Your task to perform on an android device: Open calendar and show me the third week of next month Image 0: 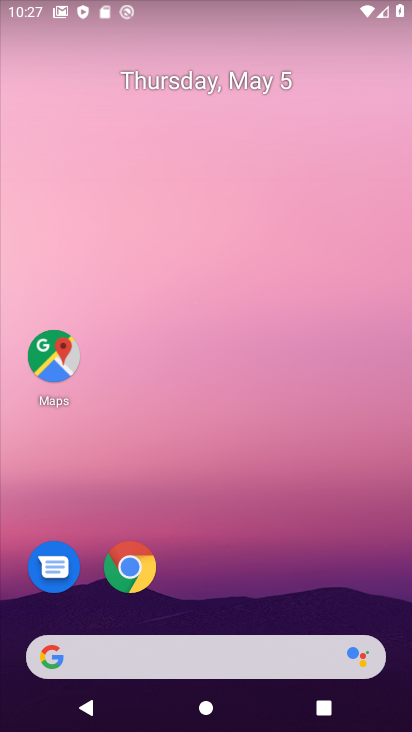
Step 0: click (288, 43)
Your task to perform on an android device: Open calendar and show me the third week of next month Image 1: 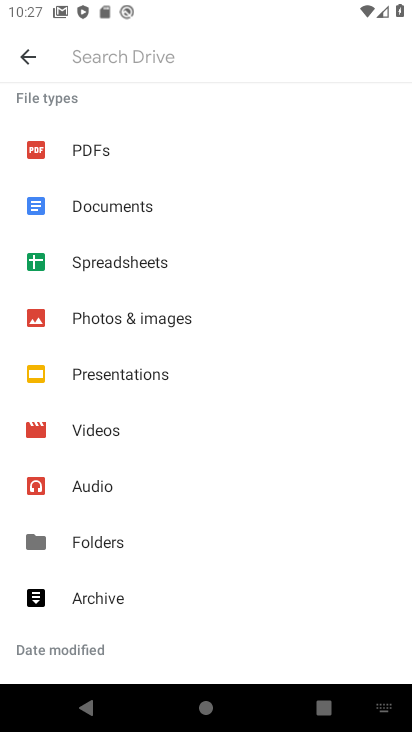
Step 1: press back button
Your task to perform on an android device: Open calendar and show me the third week of next month Image 2: 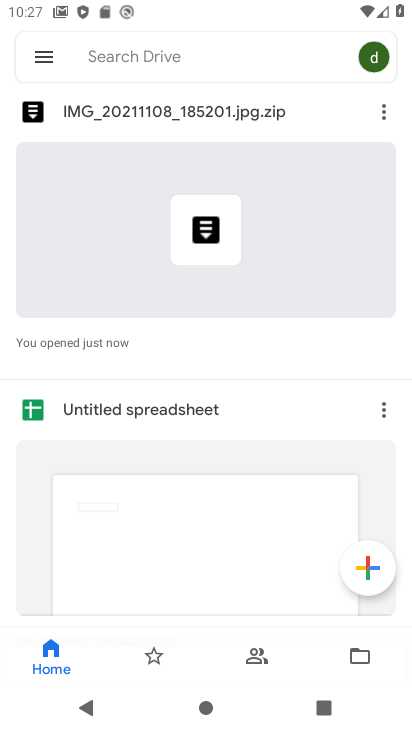
Step 2: press back button
Your task to perform on an android device: Open calendar and show me the third week of next month Image 3: 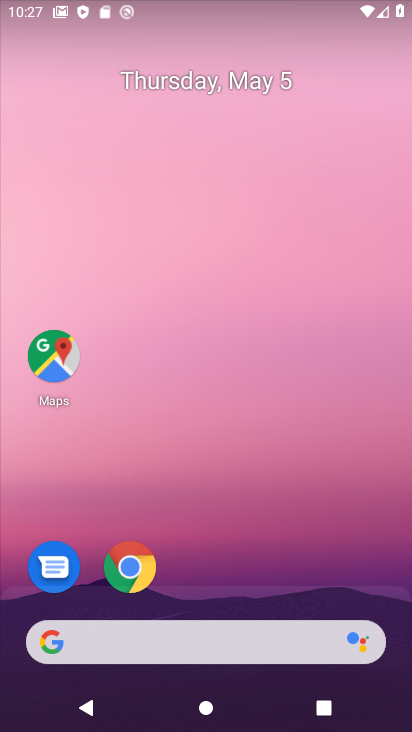
Step 3: drag from (243, 516) to (312, 66)
Your task to perform on an android device: Open calendar and show me the third week of next month Image 4: 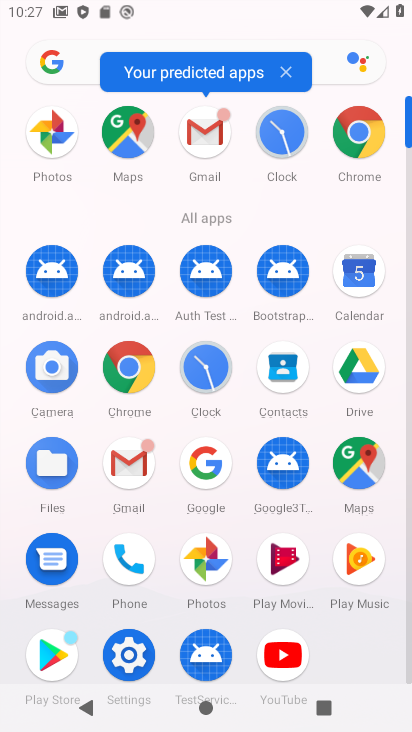
Step 4: click (354, 277)
Your task to perform on an android device: Open calendar and show me the third week of next month Image 5: 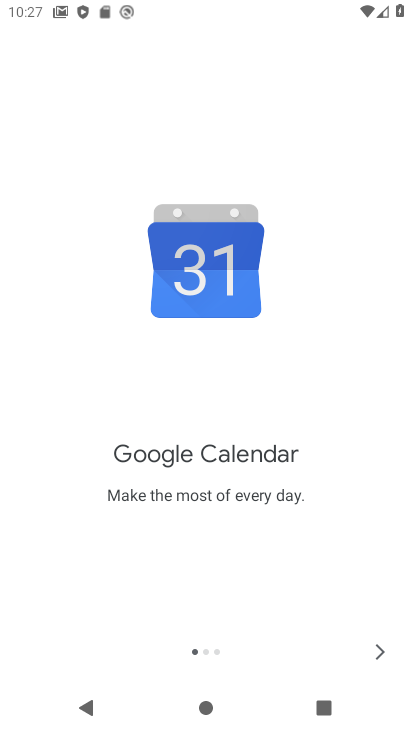
Step 5: click (387, 624)
Your task to perform on an android device: Open calendar and show me the third week of next month Image 6: 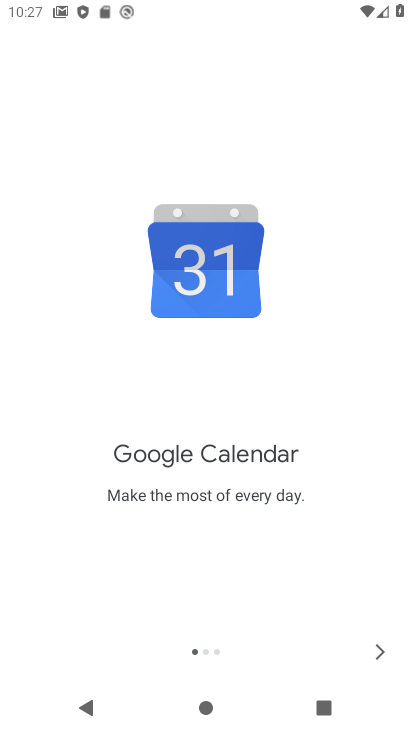
Step 6: click (376, 652)
Your task to perform on an android device: Open calendar and show me the third week of next month Image 7: 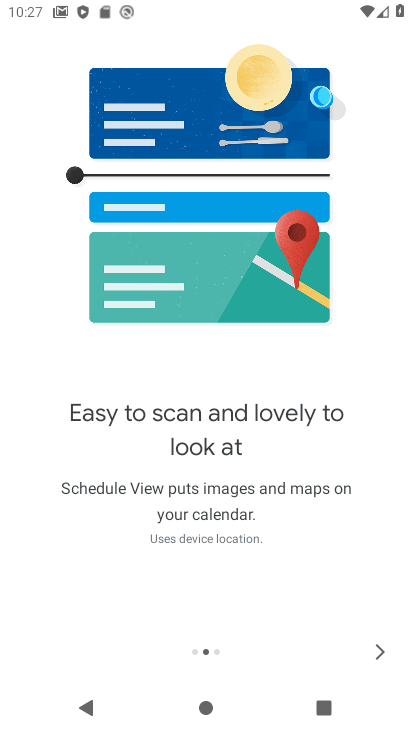
Step 7: click (383, 652)
Your task to perform on an android device: Open calendar and show me the third week of next month Image 8: 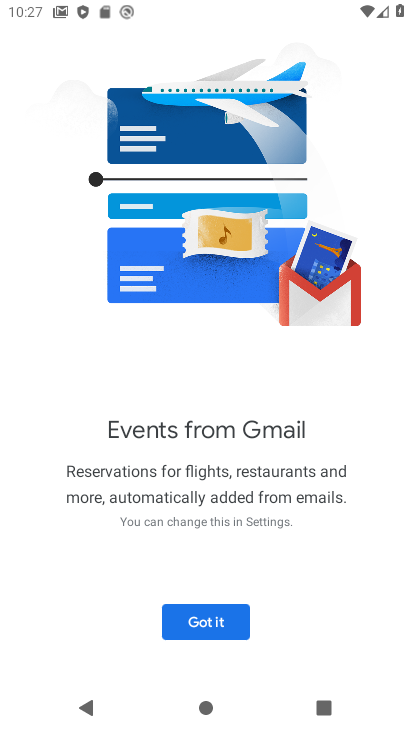
Step 8: click (231, 619)
Your task to perform on an android device: Open calendar and show me the third week of next month Image 9: 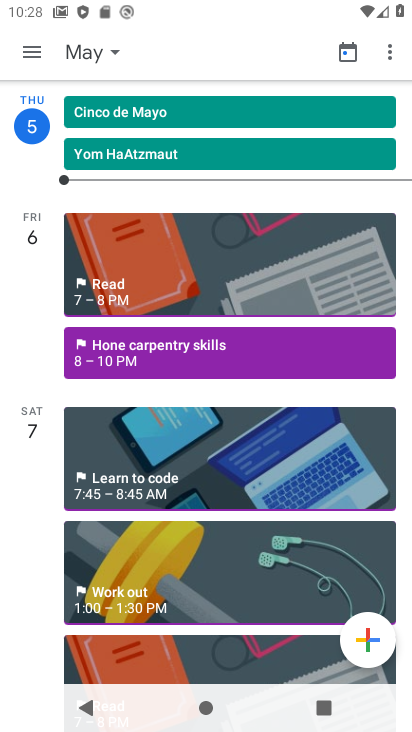
Step 9: click (102, 49)
Your task to perform on an android device: Open calendar and show me the third week of next month Image 10: 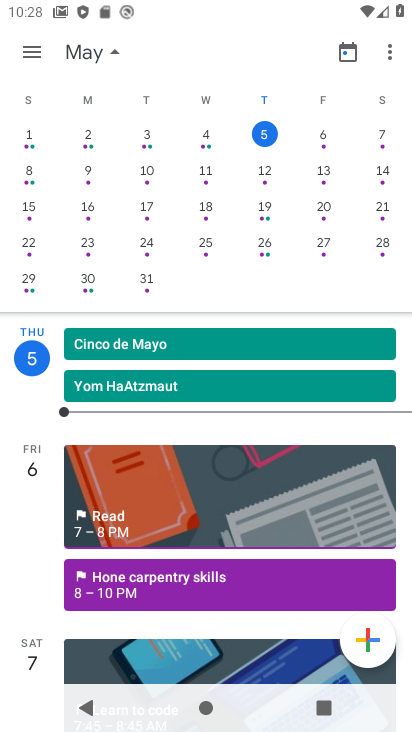
Step 10: drag from (357, 191) to (4, 184)
Your task to perform on an android device: Open calendar and show me the third week of next month Image 11: 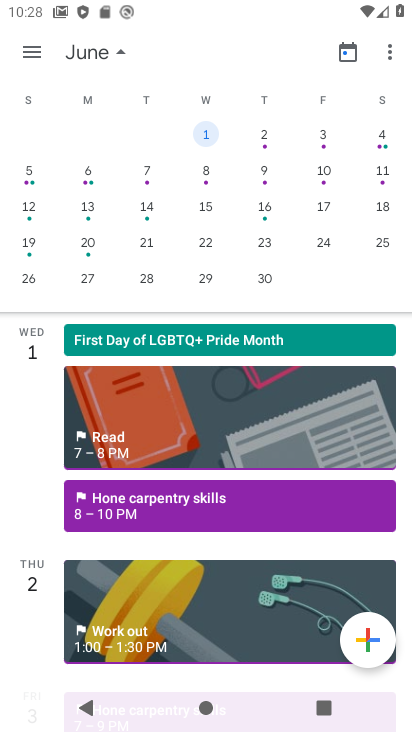
Step 11: click (79, 239)
Your task to perform on an android device: Open calendar and show me the third week of next month Image 12: 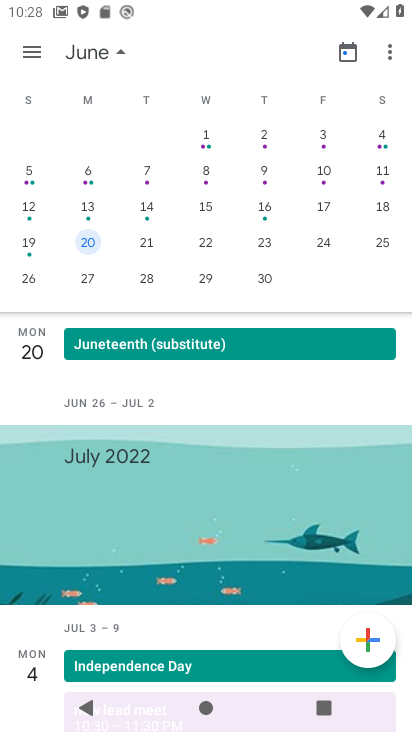
Step 12: task complete